Your task to perform on an android device: What's on my calendar today? Image 0: 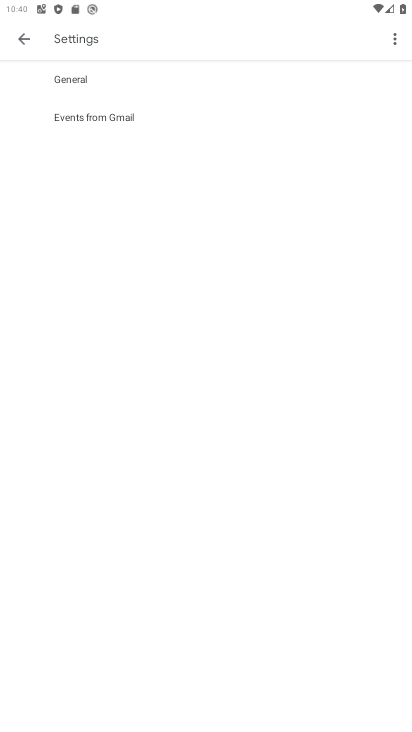
Step 0: press home button
Your task to perform on an android device: What's on my calendar today? Image 1: 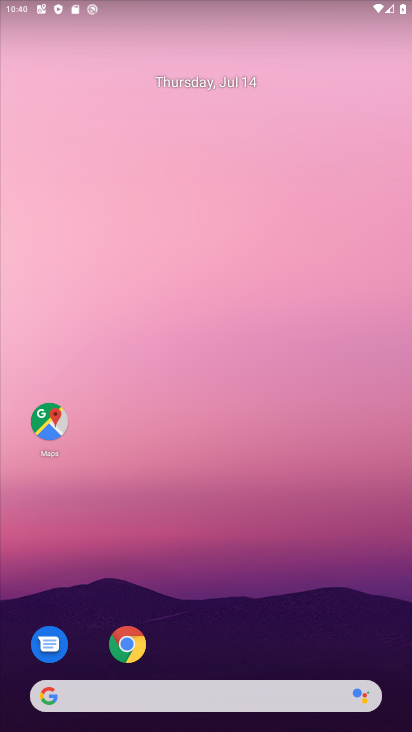
Step 1: drag from (184, 700) to (224, 0)
Your task to perform on an android device: What's on my calendar today? Image 2: 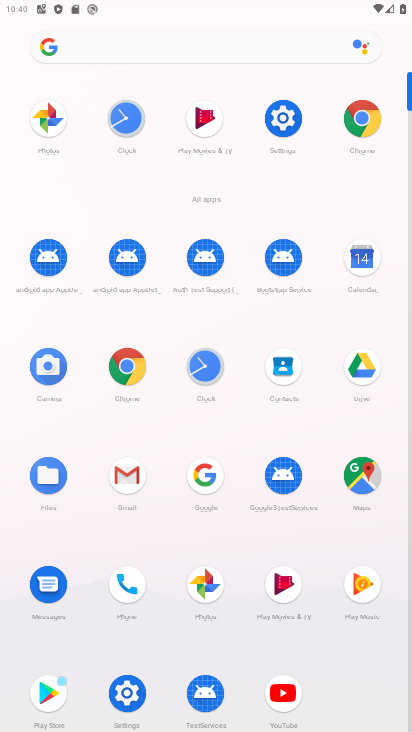
Step 2: click (350, 252)
Your task to perform on an android device: What's on my calendar today? Image 3: 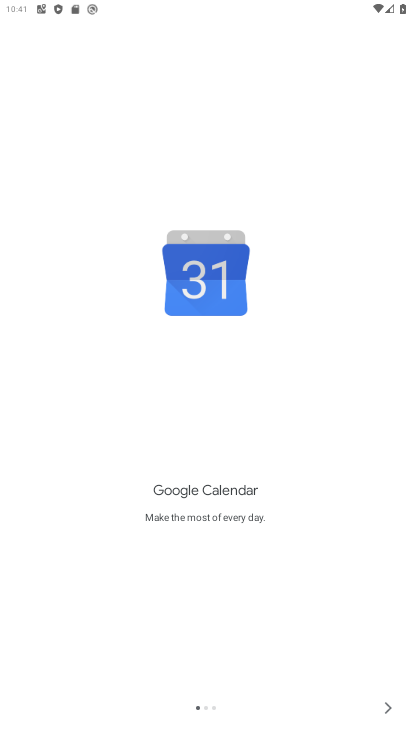
Step 3: click (393, 716)
Your task to perform on an android device: What's on my calendar today? Image 4: 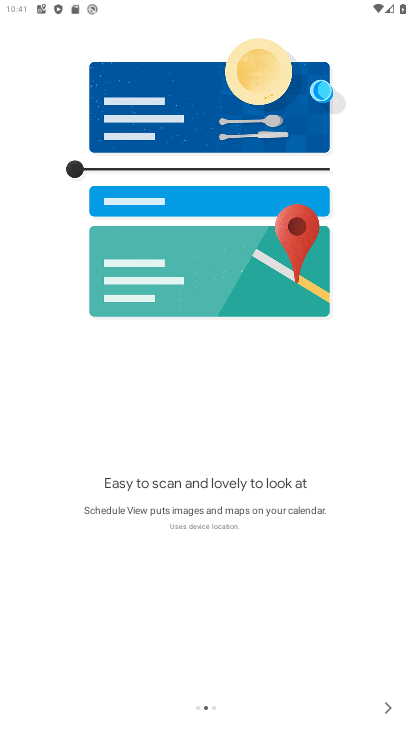
Step 4: click (393, 716)
Your task to perform on an android device: What's on my calendar today? Image 5: 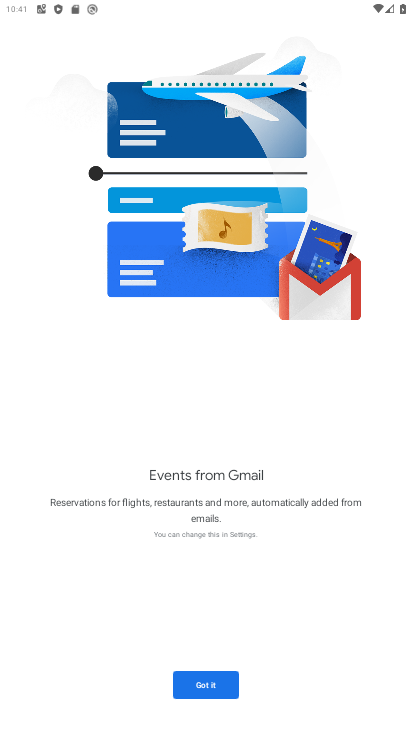
Step 5: click (214, 680)
Your task to perform on an android device: What's on my calendar today? Image 6: 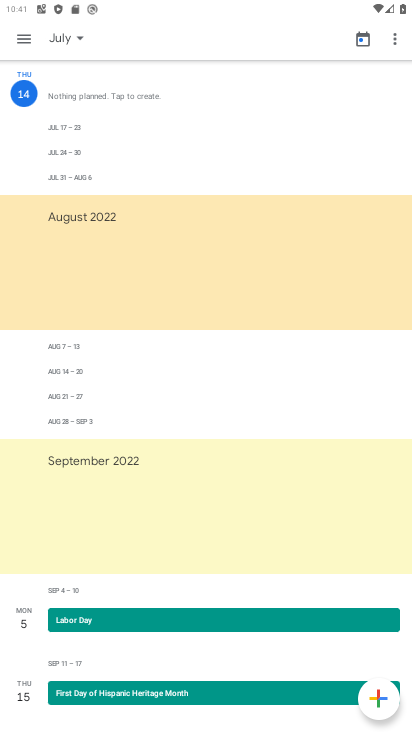
Step 6: task complete